Your task to perform on an android device: empty trash in the gmail app Image 0: 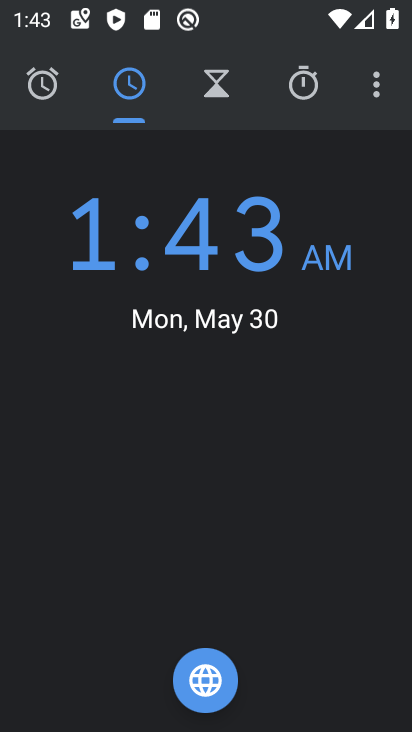
Step 0: press home button
Your task to perform on an android device: empty trash in the gmail app Image 1: 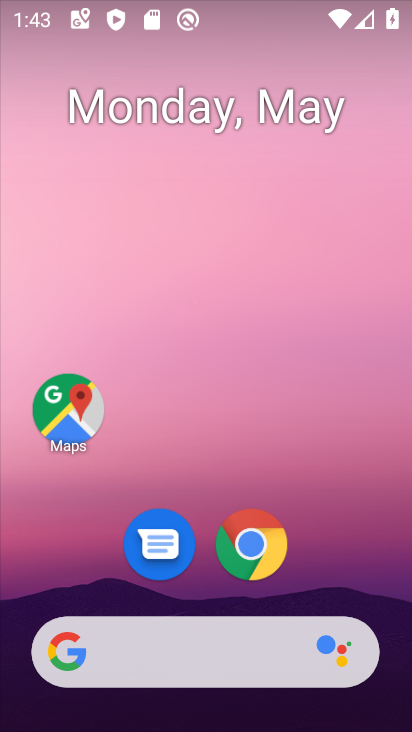
Step 1: drag from (383, 570) to (375, 180)
Your task to perform on an android device: empty trash in the gmail app Image 2: 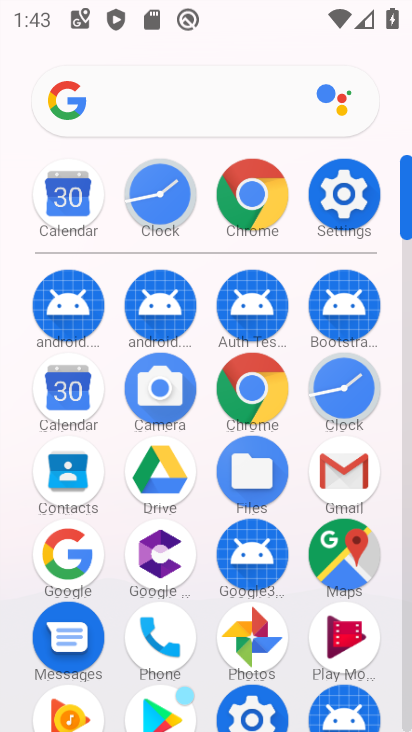
Step 2: click (355, 481)
Your task to perform on an android device: empty trash in the gmail app Image 3: 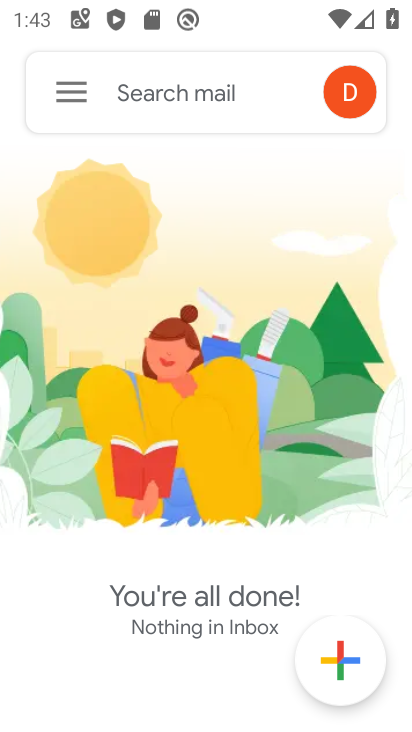
Step 3: click (76, 95)
Your task to perform on an android device: empty trash in the gmail app Image 4: 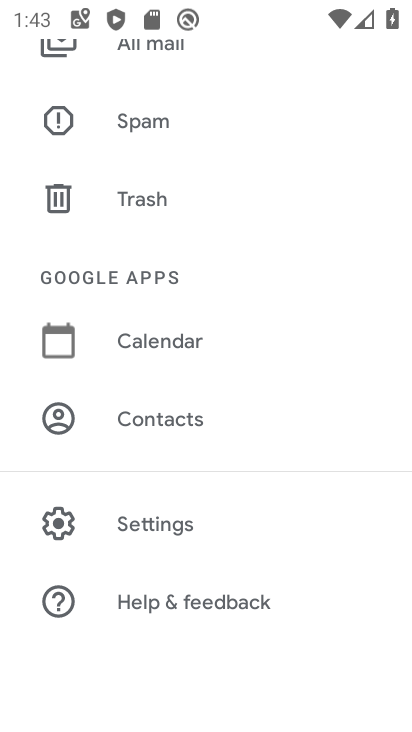
Step 4: drag from (308, 277) to (303, 376)
Your task to perform on an android device: empty trash in the gmail app Image 5: 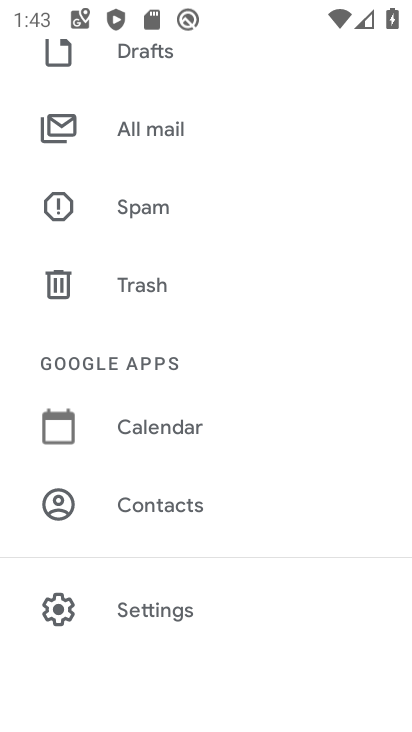
Step 5: drag from (295, 218) to (311, 420)
Your task to perform on an android device: empty trash in the gmail app Image 6: 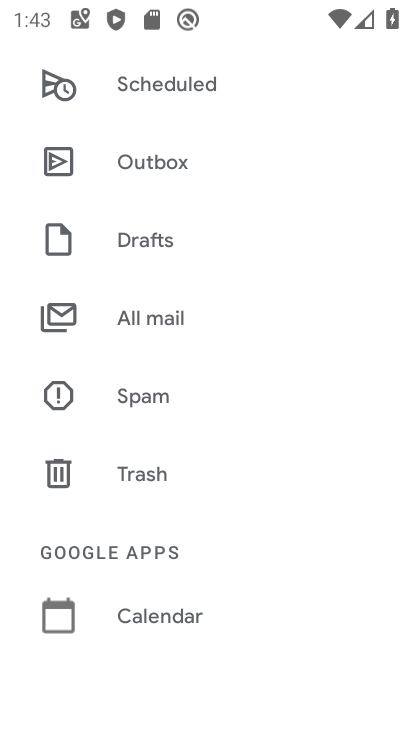
Step 6: drag from (288, 178) to (292, 279)
Your task to perform on an android device: empty trash in the gmail app Image 7: 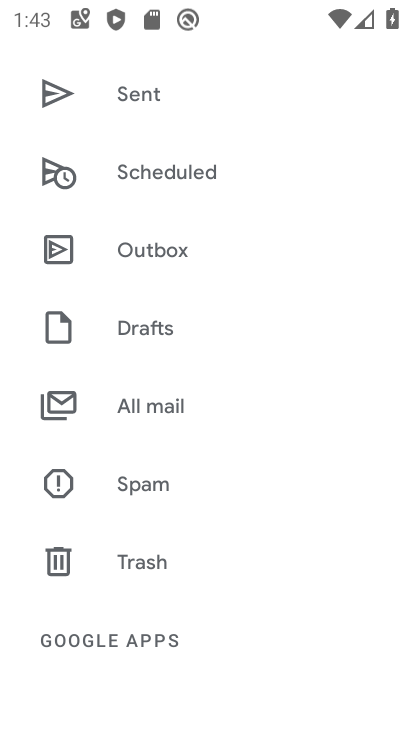
Step 7: drag from (296, 152) to (300, 269)
Your task to perform on an android device: empty trash in the gmail app Image 8: 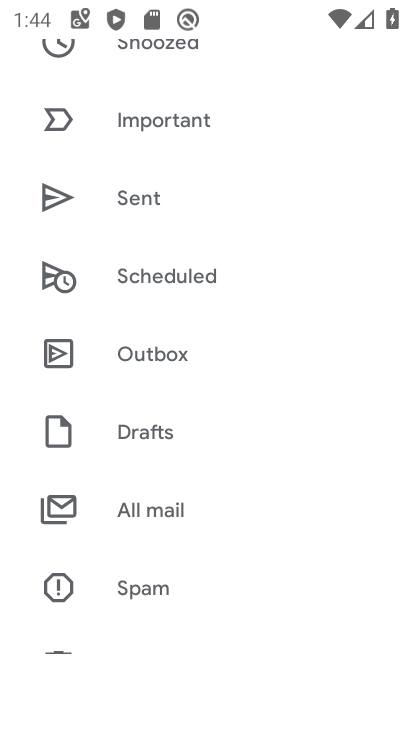
Step 8: drag from (301, 115) to (307, 229)
Your task to perform on an android device: empty trash in the gmail app Image 9: 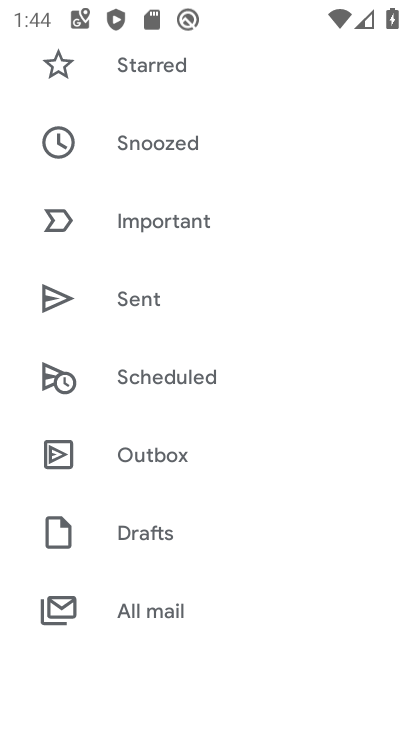
Step 9: drag from (315, 102) to (306, 221)
Your task to perform on an android device: empty trash in the gmail app Image 10: 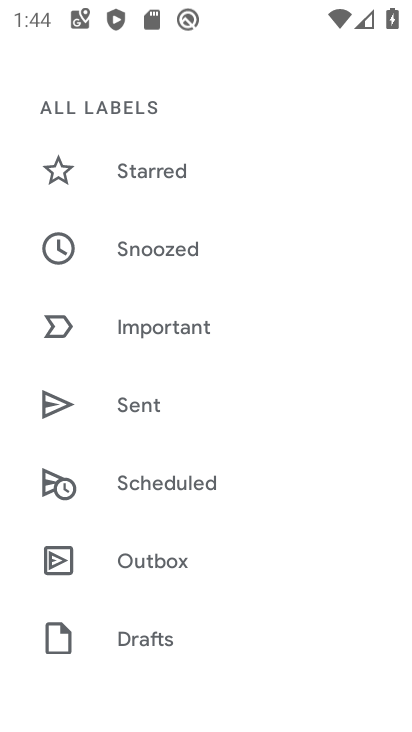
Step 10: drag from (306, 113) to (290, 296)
Your task to perform on an android device: empty trash in the gmail app Image 11: 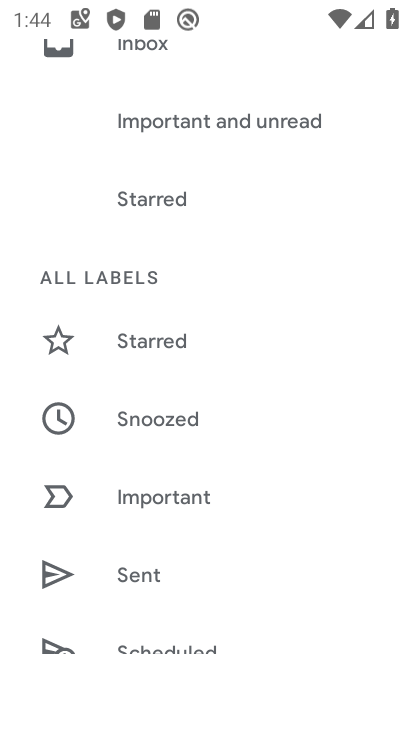
Step 11: drag from (280, 428) to (290, 317)
Your task to perform on an android device: empty trash in the gmail app Image 12: 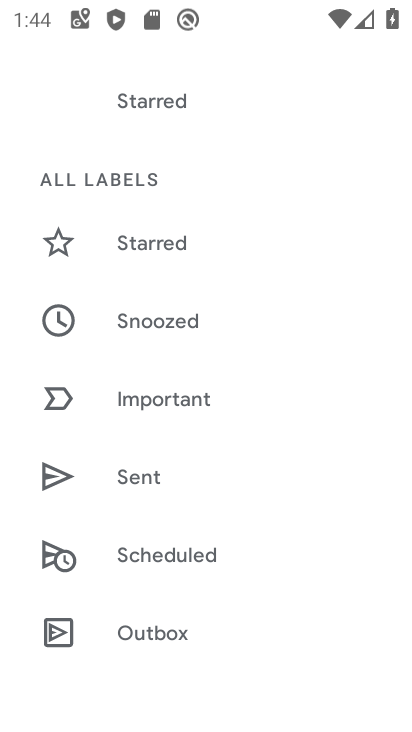
Step 12: drag from (278, 429) to (291, 333)
Your task to perform on an android device: empty trash in the gmail app Image 13: 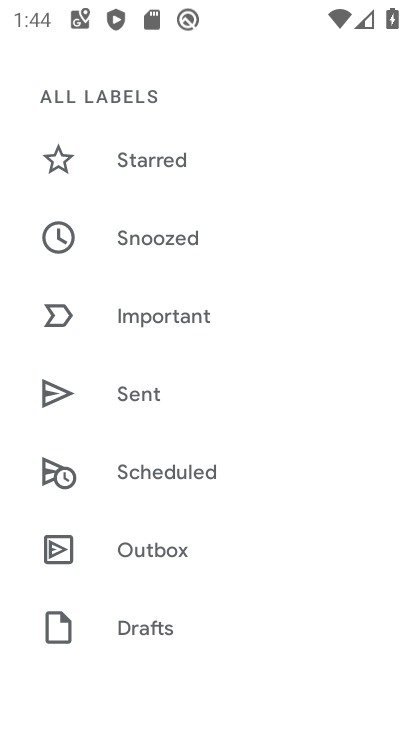
Step 13: drag from (287, 429) to (288, 340)
Your task to perform on an android device: empty trash in the gmail app Image 14: 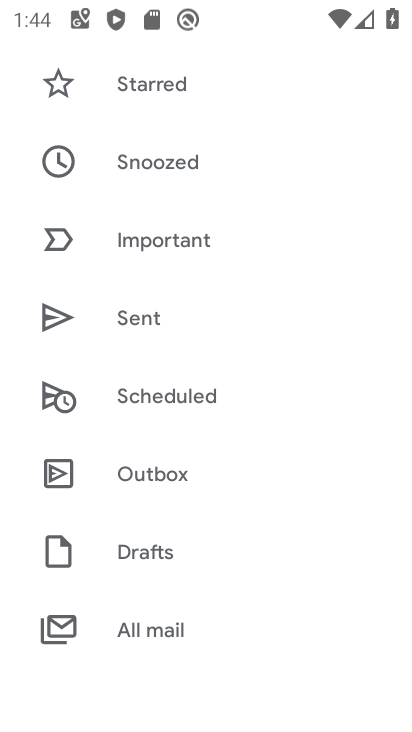
Step 14: drag from (276, 492) to (295, 360)
Your task to perform on an android device: empty trash in the gmail app Image 15: 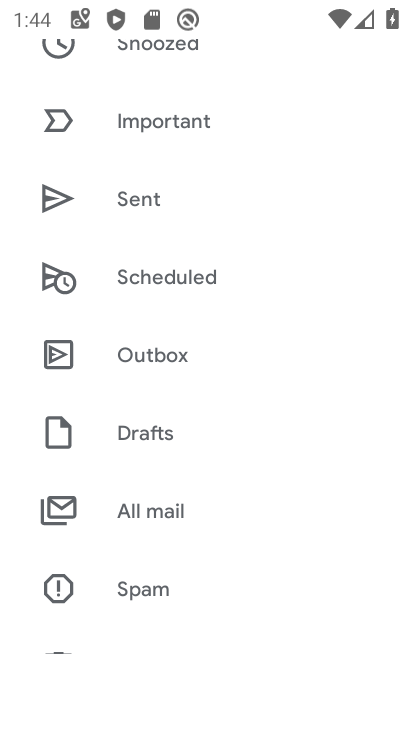
Step 15: drag from (277, 508) to (276, 339)
Your task to perform on an android device: empty trash in the gmail app Image 16: 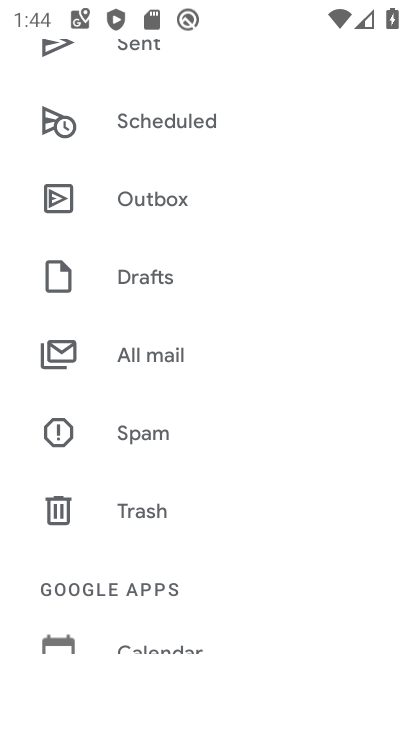
Step 16: click (172, 529)
Your task to perform on an android device: empty trash in the gmail app Image 17: 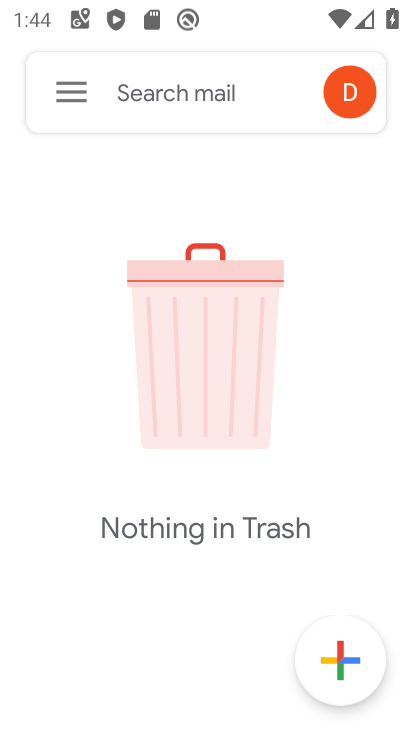
Step 17: task complete